Your task to perform on an android device: When is my next meeting? Image 0: 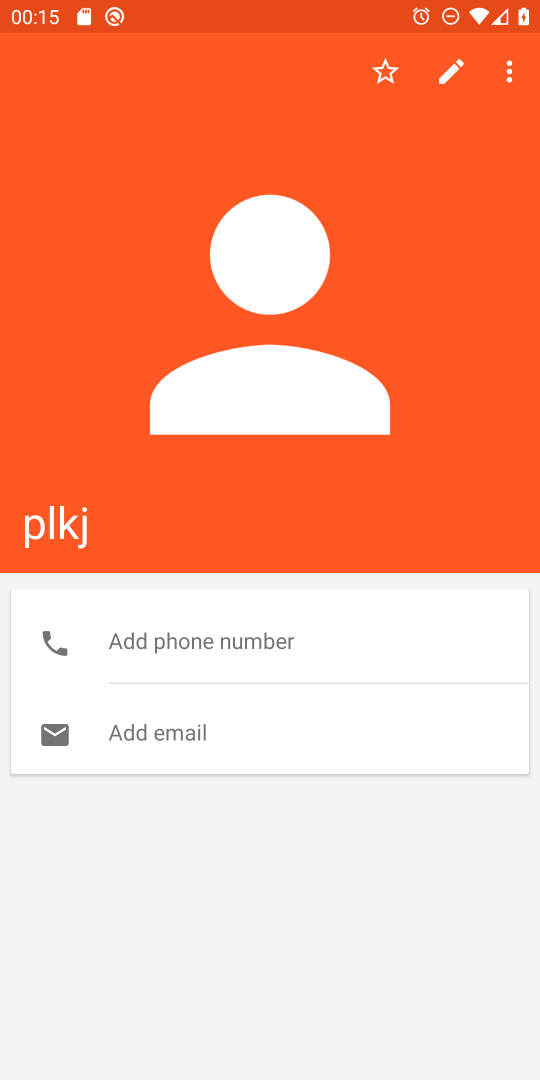
Step 0: press home button
Your task to perform on an android device: When is my next meeting? Image 1: 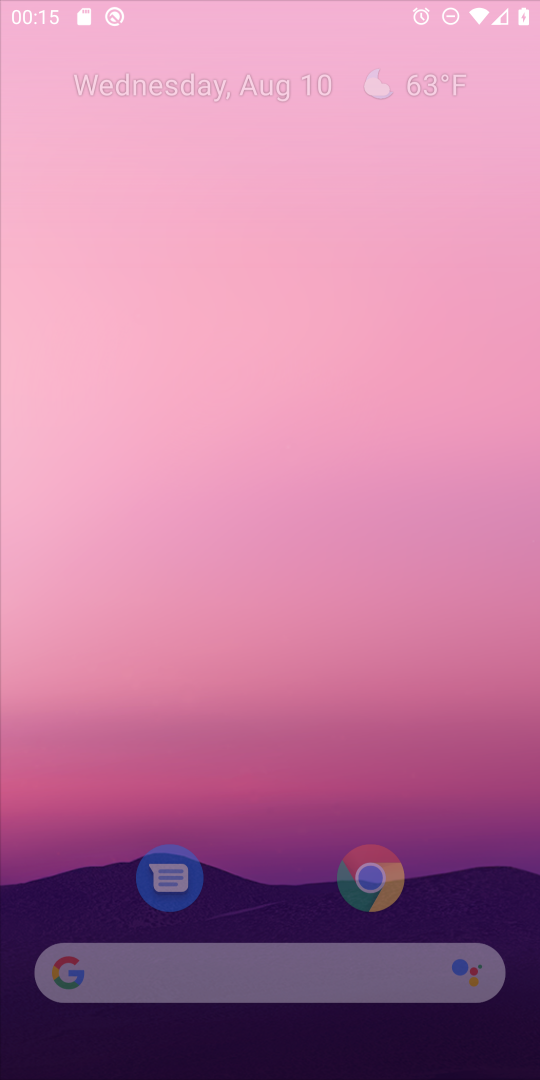
Step 1: press home button
Your task to perform on an android device: When is my next meeting? Image 2: 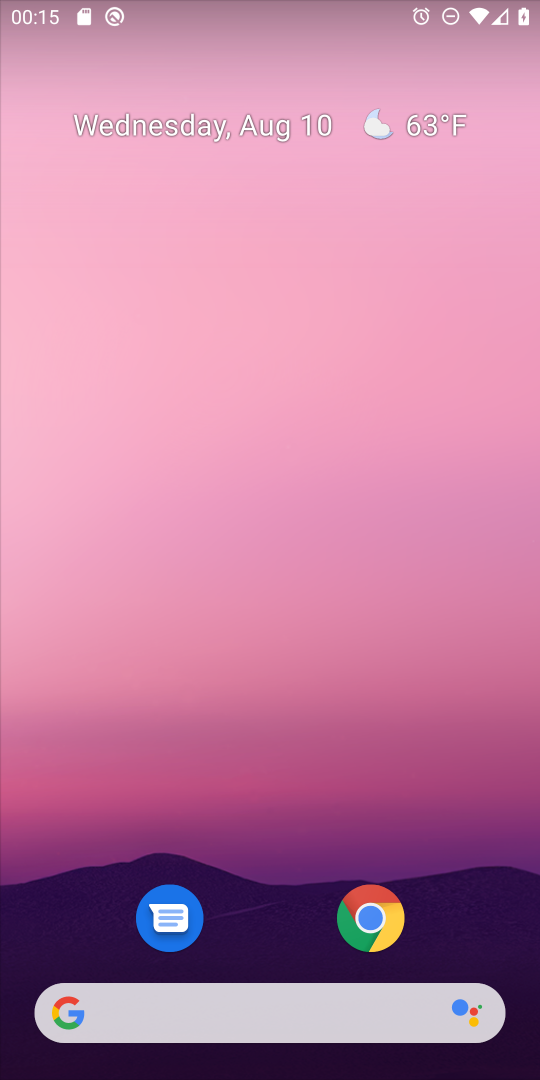
Step 2: drag from (351, 602) to (423, 122)
Your task to perform on an android device: When is my next meeting? Image 3: 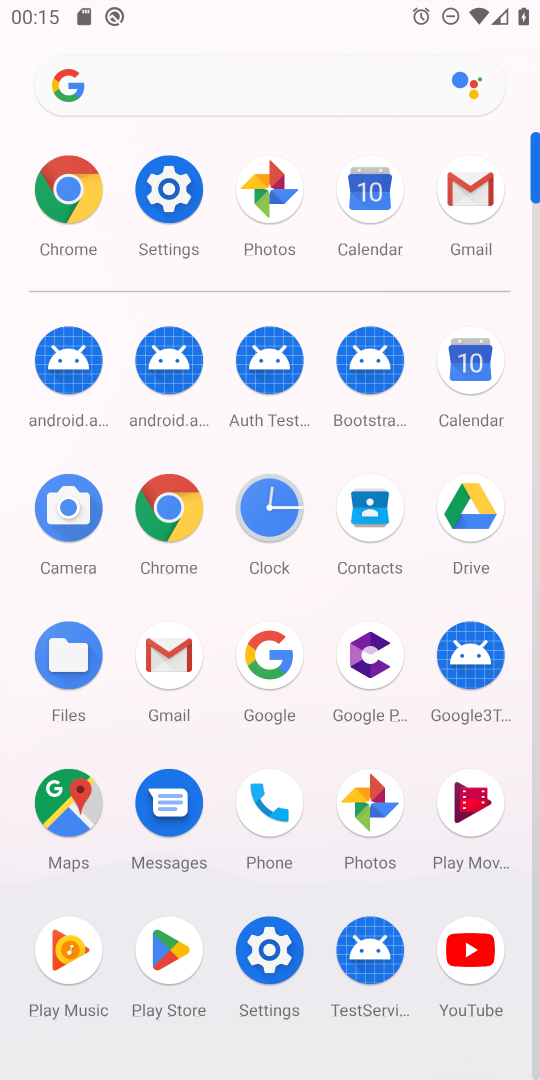
Step 3: click (461, 350)
Your task to perform on an android device: When is my next meeting? Image 4: 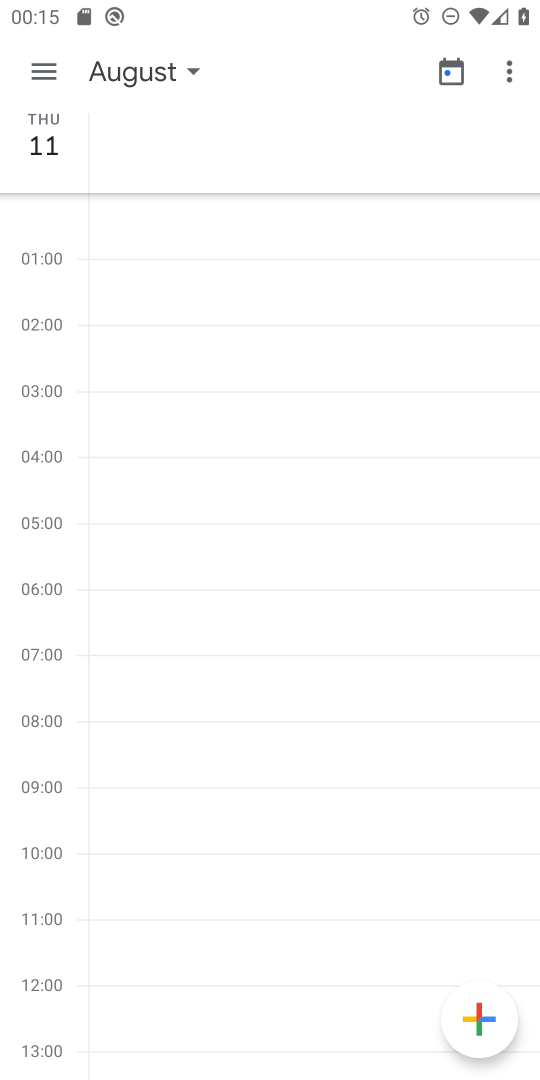
Step 4: click (46, 66)
Your task to perform on an android device: When is my next meeting? Image 5: 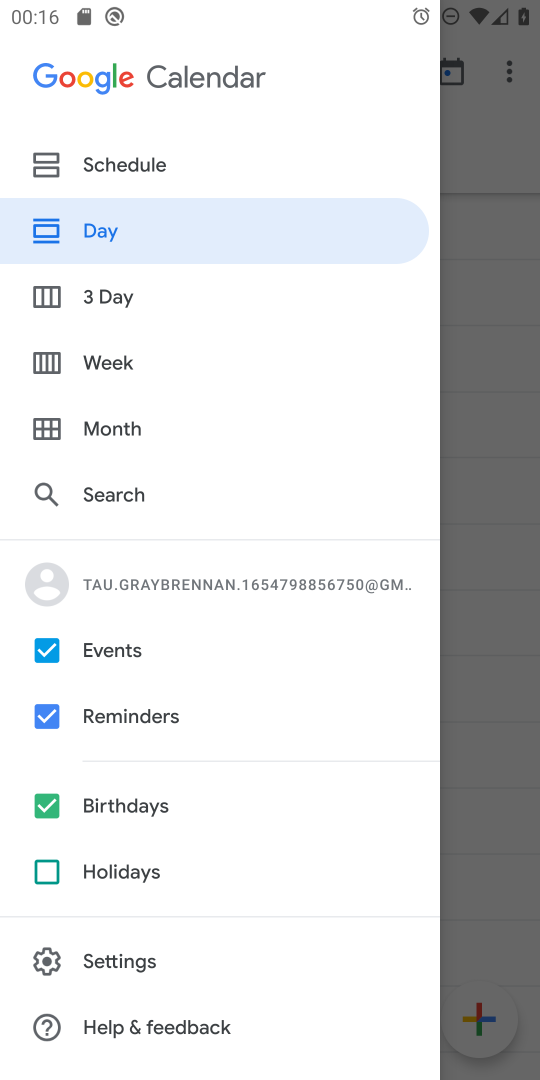
Step 5: click (111, 348)
Your task to perform on an android device: When is my next meeting? Image 6: 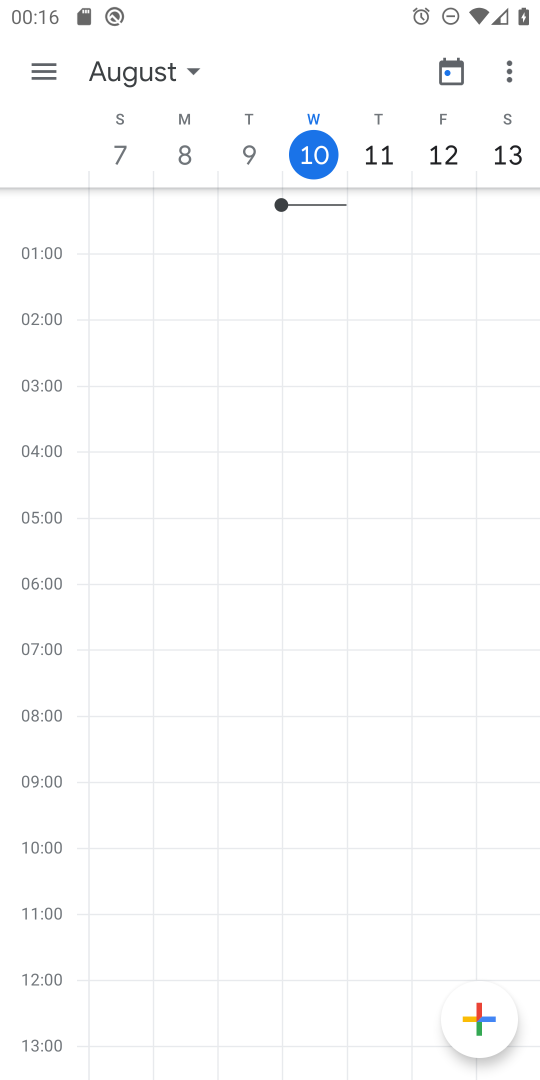
Step 6: task complete